Your task to perform on an android device: Show the shopping cart on ebay. Add logitech g933 to the cart on ebay Image 0: 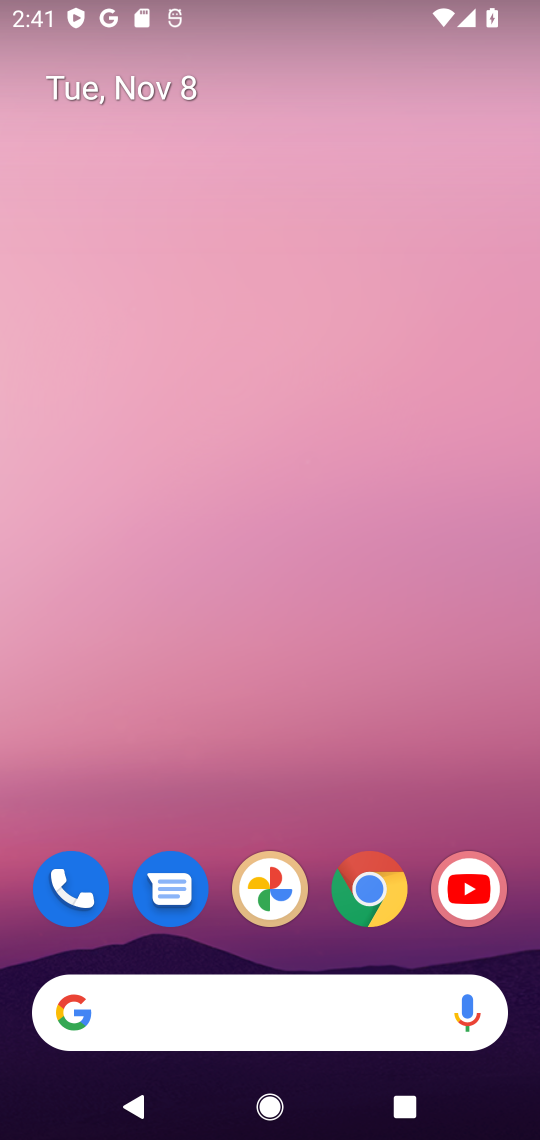
Step 0: click (356, 900)
Your task to perform on an android device: Show the shopping cart on ebay. Add logitech g933 to the cart on ebay Image 1: 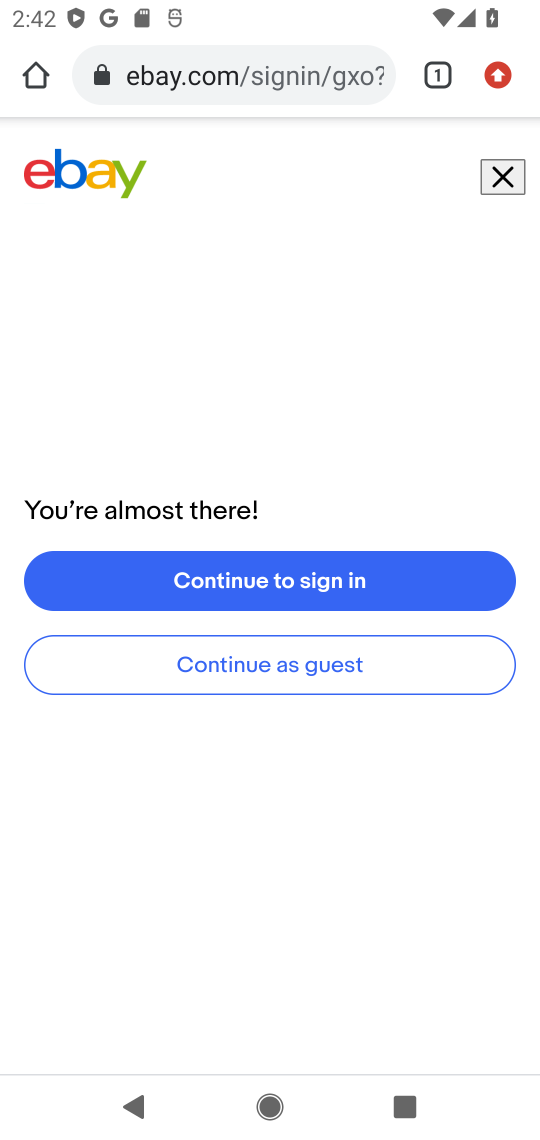
Step 1: click (507, 171)
Your task to perform on an android device: Show the shopping cart on ebay. Add logitech g933 to the cart on ebay Image 2: 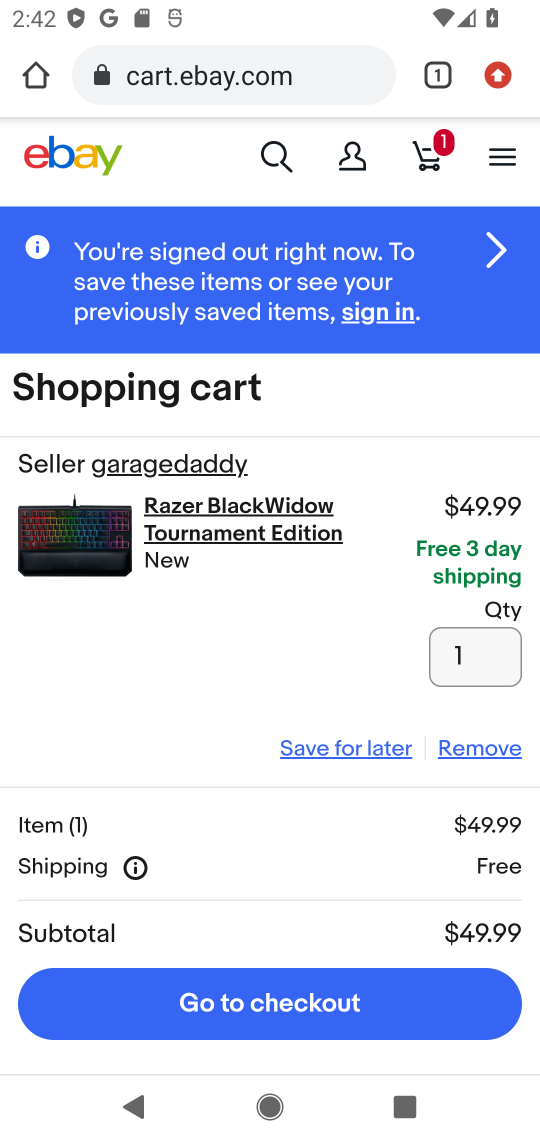
Step 2: click (428, 159)
Your task to perform on an android device: Show the shopping cart on ebay. Add logitech g933 to the cart on ebay Image 3: 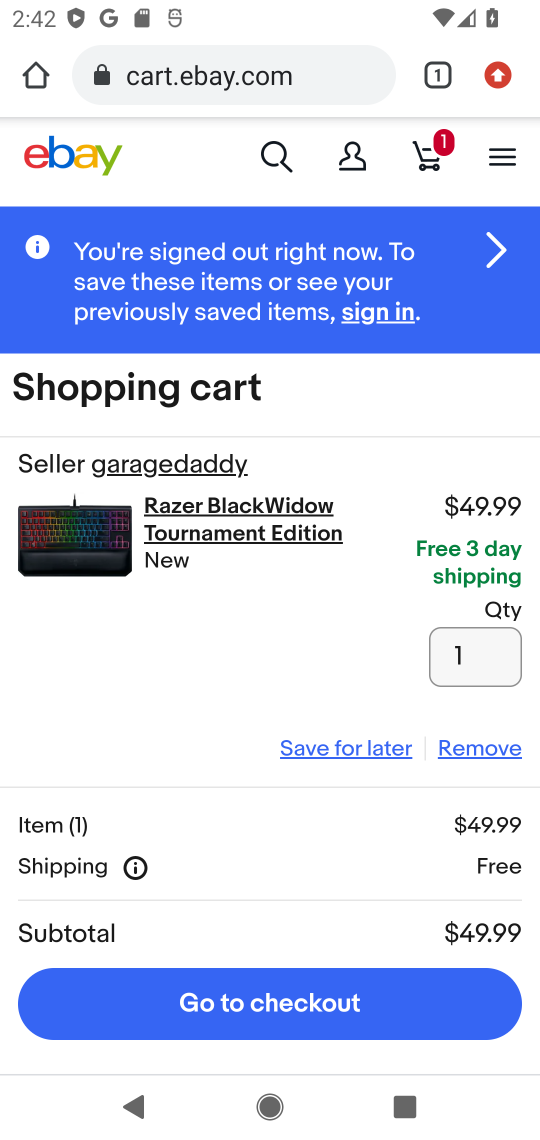
Step 3: click (277, 155)
Your task to perform on an android device: Show the shopping cart on ebay. Add logitech g933 to the cart on ebay Image 4: 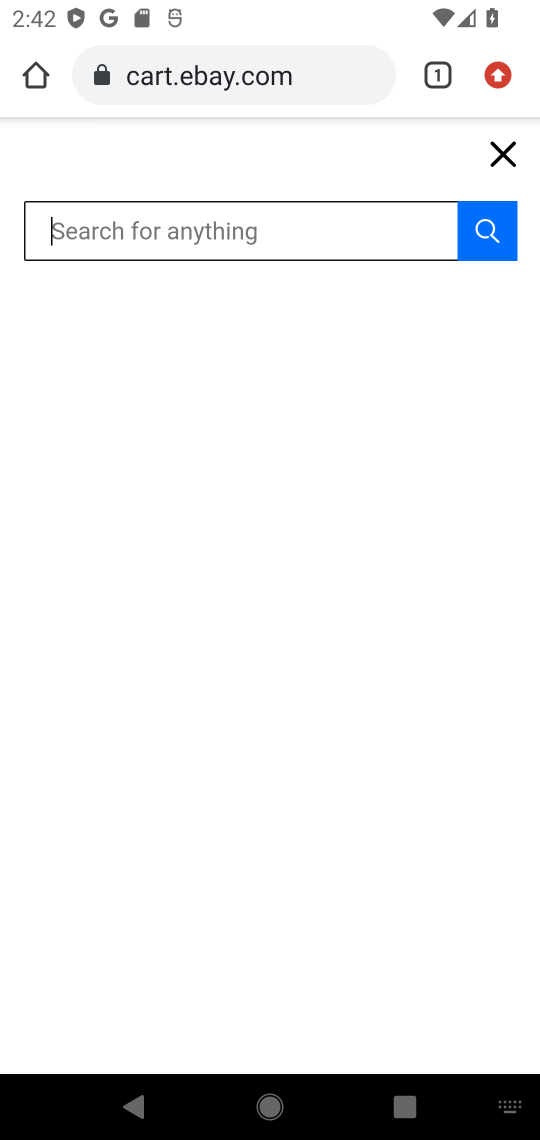
Step 4: type " logitech g933 "
Your task to perform on an android device: Show the shopping cart on ebay. Add logitech g933 to the cart on ebay Image 5: 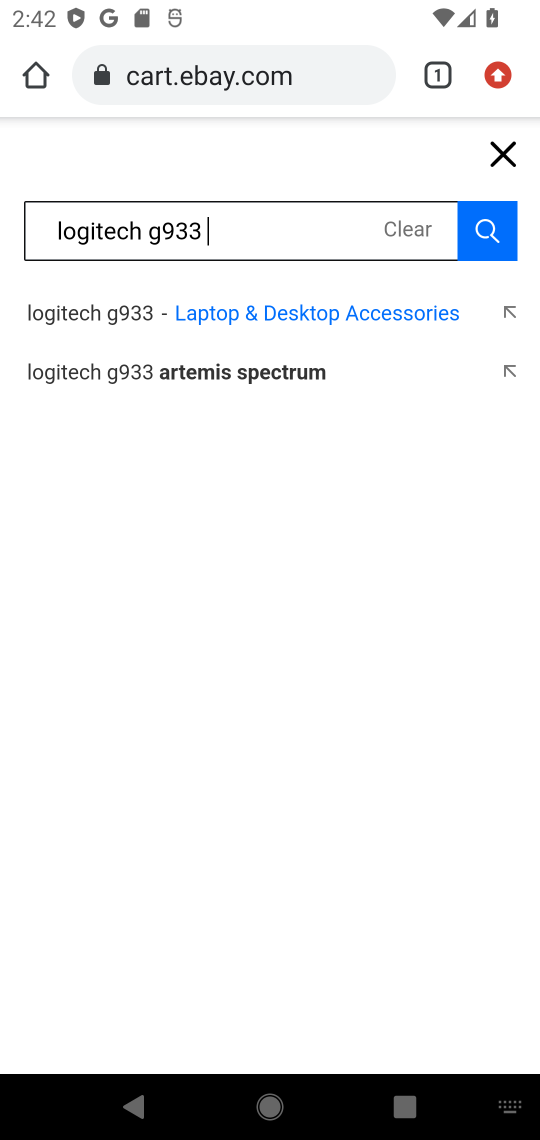
Step 5: click (481, 231)
Your task to perform on an android device: Show the shopping cart on ebay. Add logitech g933 to the cart on ebay Image 6: 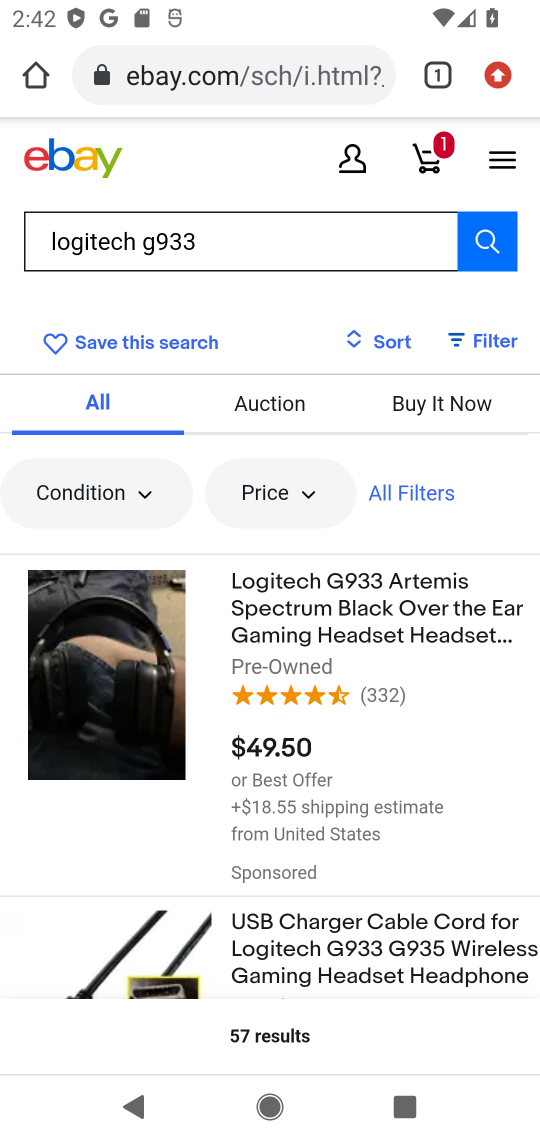
Step 6: click (159, 701)
Your task to perform on an android device: Show the shopping cart on ebay. Add logitech g933 to the cart on ebay Image 7: 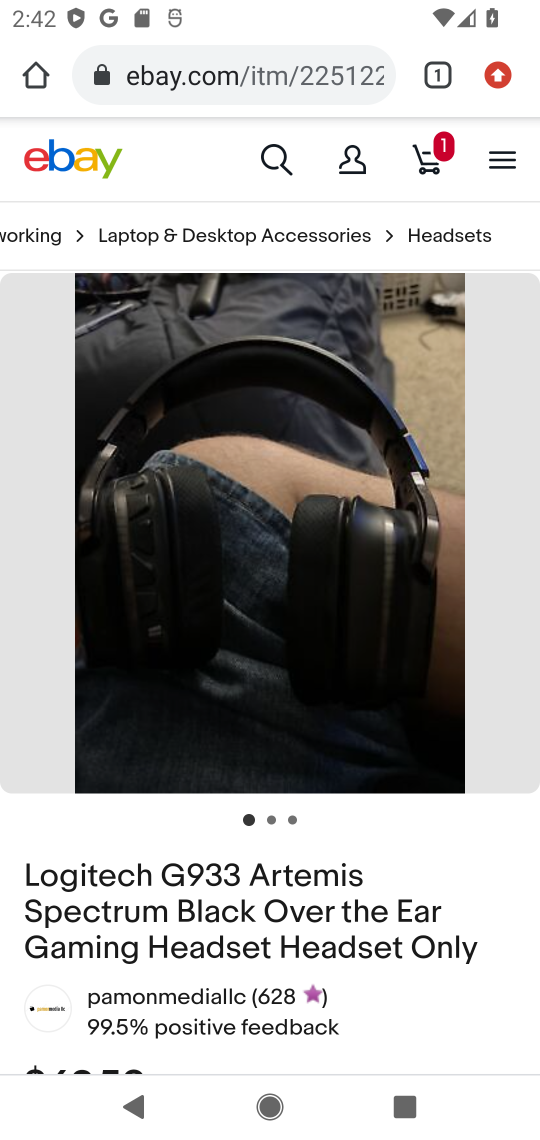
Step 7: drag from (354, 883) to (318, 391)
Your task to perform on an android device: Show the shopping cart on ebay. Add logitech g933 to the cart on ebay Image 8: 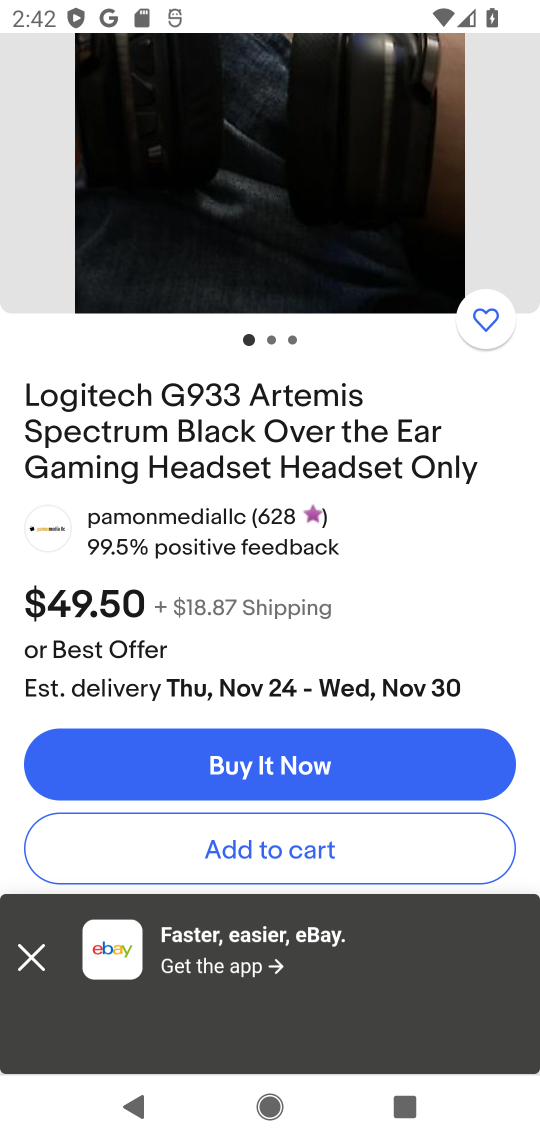
Step 8: click (267, 836)
Your task to perform on an android device: Show the shopping cart on ebay. Add logitech g933 to the cart on ebay Image 9: 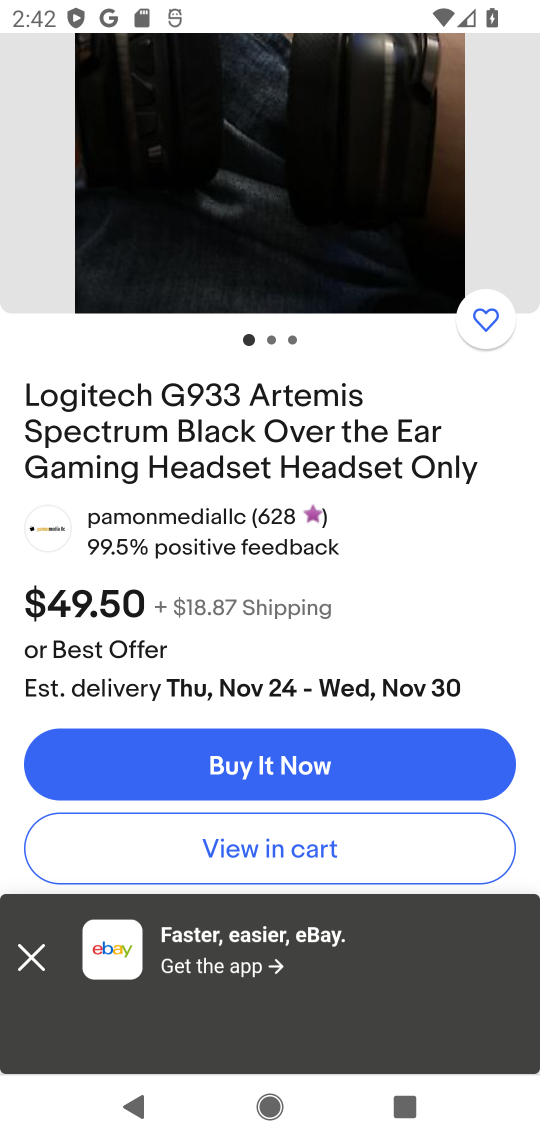
Step 9: task complete